Your task to perform on an android device: Go to internet settings Image 0: 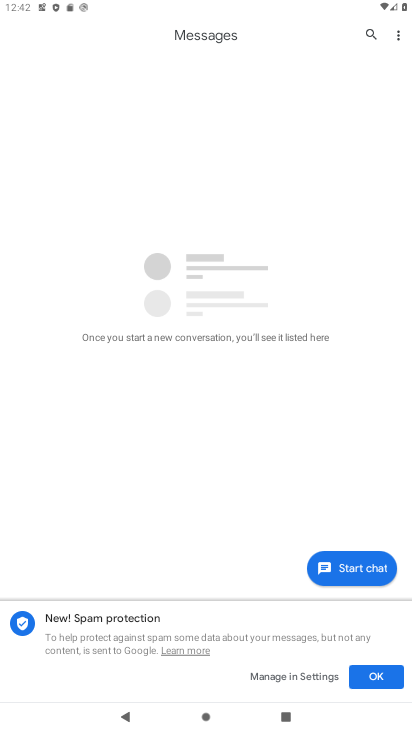
Step 0: press home button
Your task to perform on an android device: Go to internet settings Image 1: 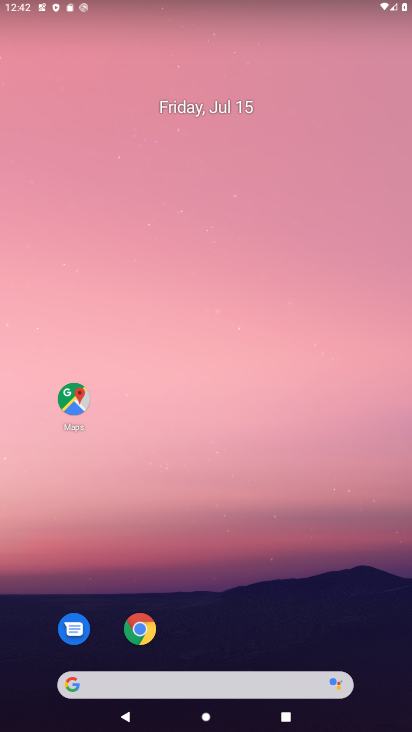
Step 1: drag from (241, 627) to (214, 55)
Your task to perform on an android device: Go to internet settings Image 2: 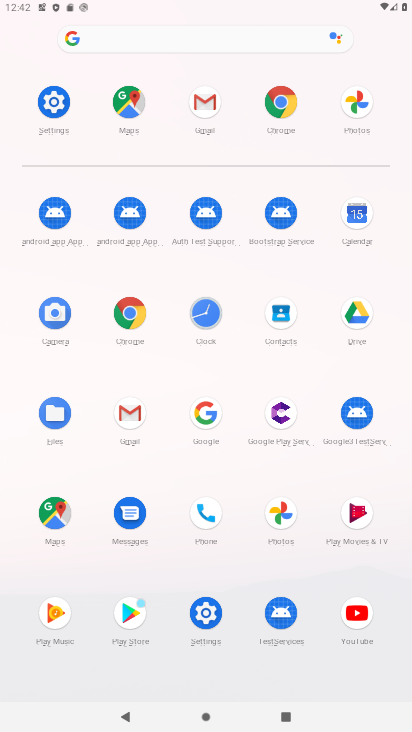
Step 2: click (43, 99)
Your task to perform on an android device: Go to internet settings Image 3: 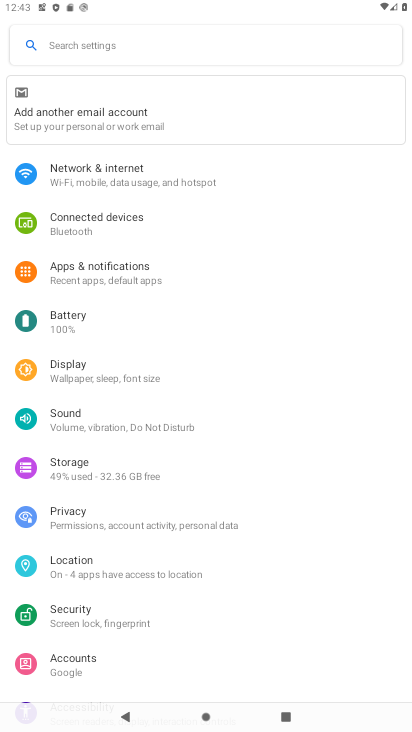
Step 3: click (76, 162)
Your task to perform on an android device: Go to internet settings Image 4: 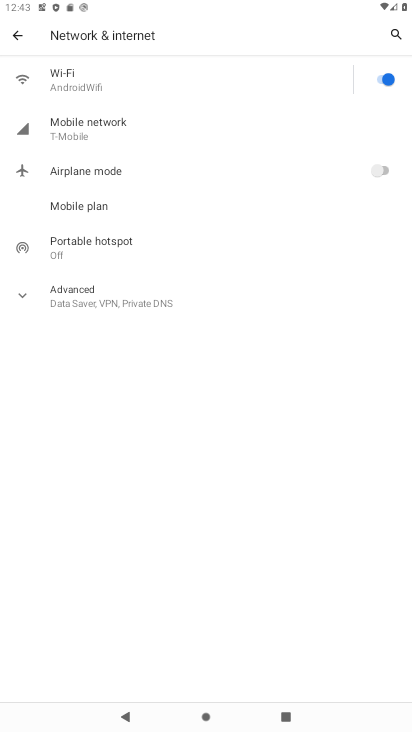
Step 4: click (109, 304)
Your task to perform on an android device: Go to internet settings Image 5: 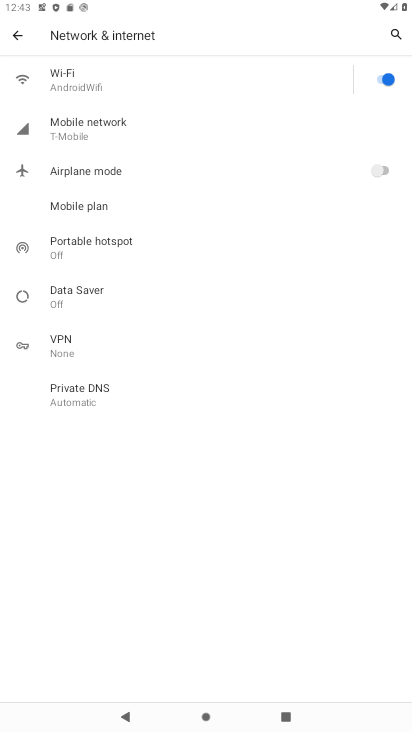
Step 5: task complete